Your task to perform on an android device: What's the weather? Image 0: 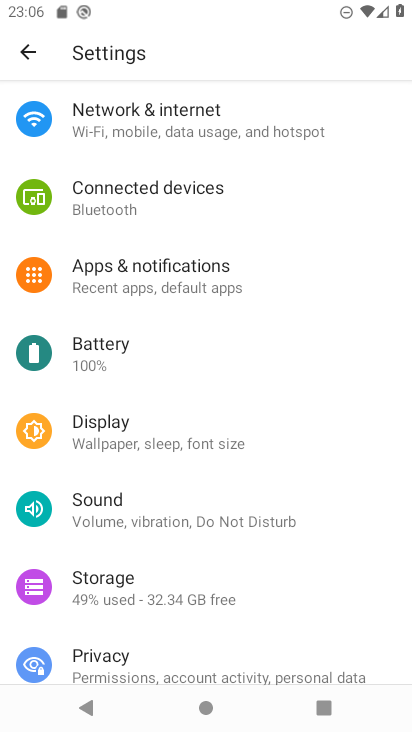
Step 0: press home button
Your task to perform on an android device: What's the weather? Image 1: 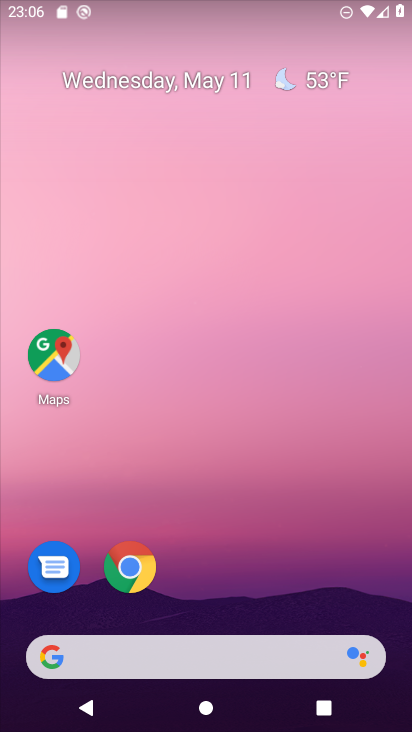
Step 1: click (121, 645)
Your task to perform on an android device: What's the weather? Image 2: 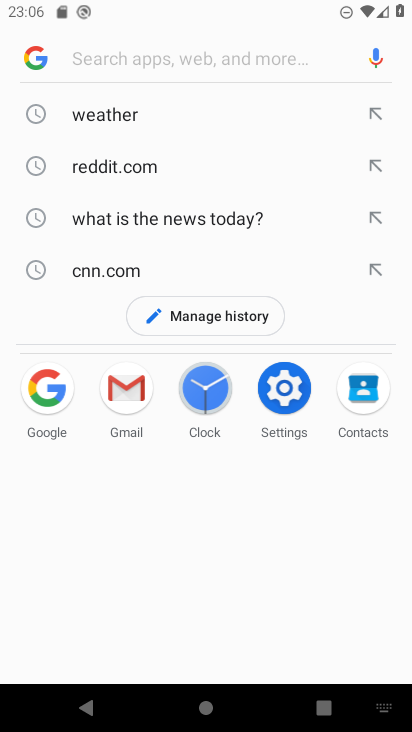
Step 2: type "What's the weather?"
Your task to perform on an android device: What's the weather? Image 3: 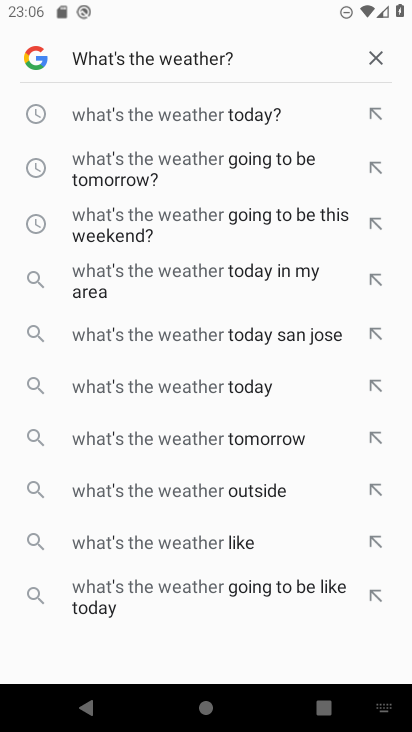
Step 3: click (293, 120)
Your task to perform on an android device: What's the weather? Image 4: 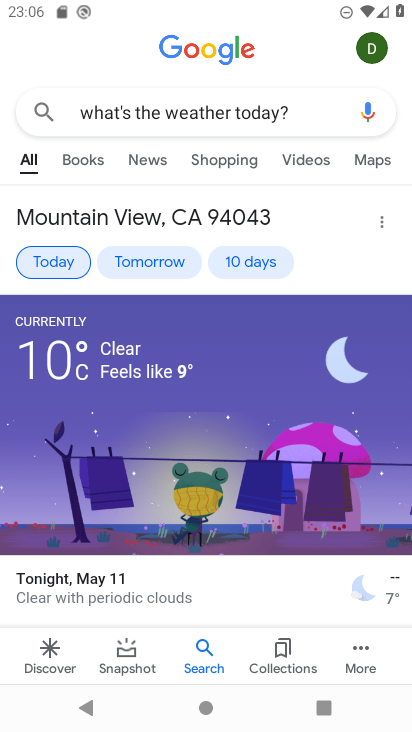
Step 4: task complete